Your task to perform on an android device: Show me popular games on the Play Store Image 0: 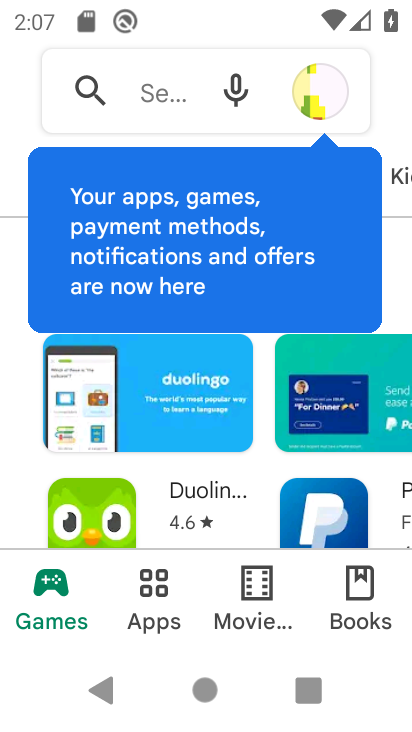
Step 0: drag from (201, 530) to (200, 90)
Your task to perform on an android device: Show me popular games on the Play Store Image 1: 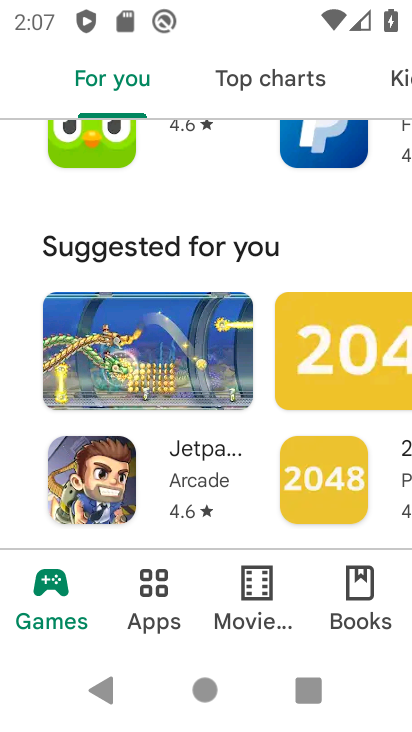
Step 1: drag from (196, 524) to (184, 110)
Your task to perform on an android device: Show me popular games on the Play Store Image 2: 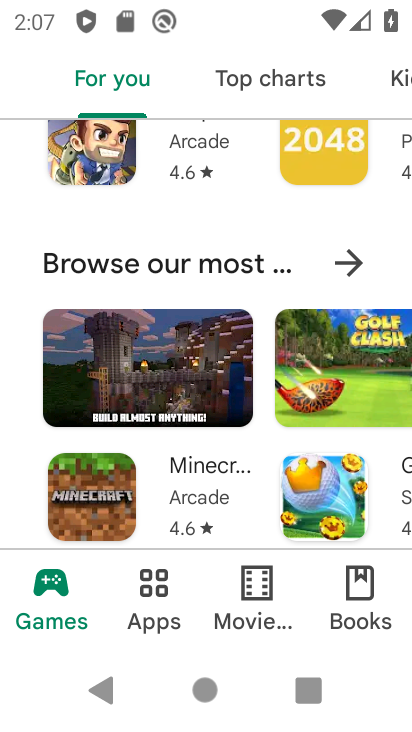
Step 2: drag from (208, 529) to (227, 168)
Your task to perform on an android device: Show me popular games on the Play Store Image 3: 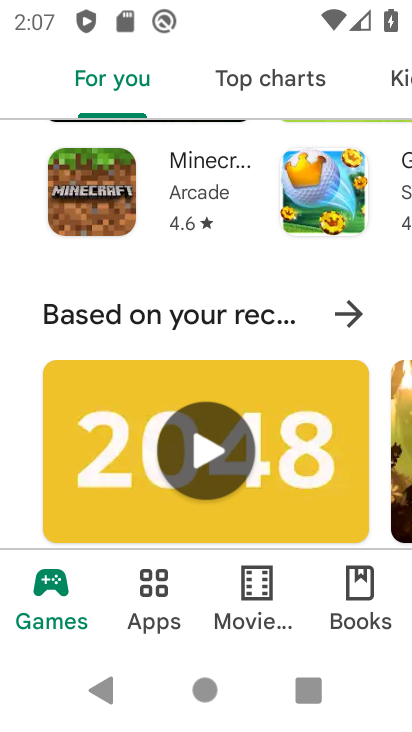
Step 3: drag from (206, 531) to (211, 133)
Your task to perform on an android device: Show me popular games on the Play Store Image 4: 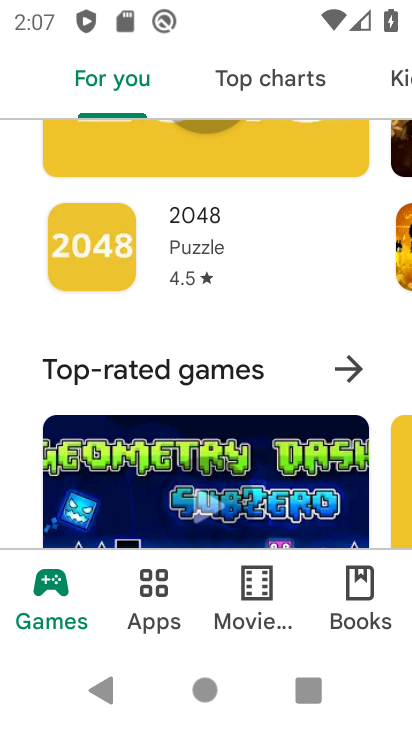
Step 4: drag from (244, 506) to (240, 102)
Your task to perform on an android device: Show me popular games on the Play Store Image 5: 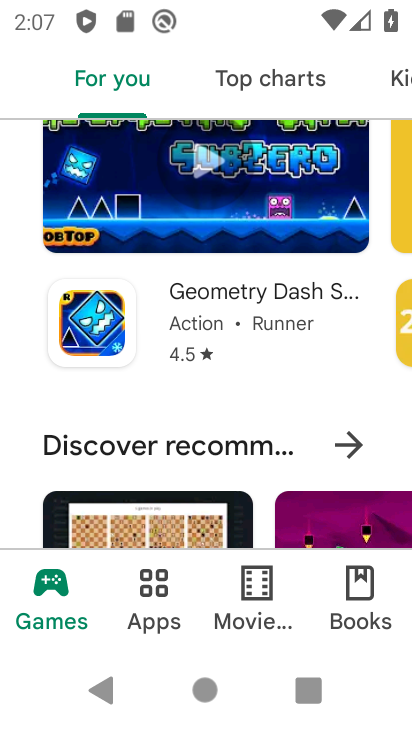
Step 5: drag from (257, 513) to (268, 152)
Your task to perform on an android device: Show me popular games on the Play Store Image 6: 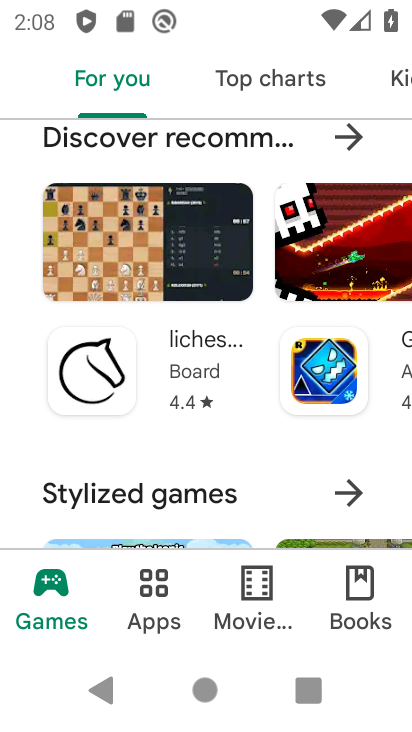
Step 6: drag from (256, 511) to (247, 148)
Your task to perform on an android device: Show me popular games on the Play Store Image 7: 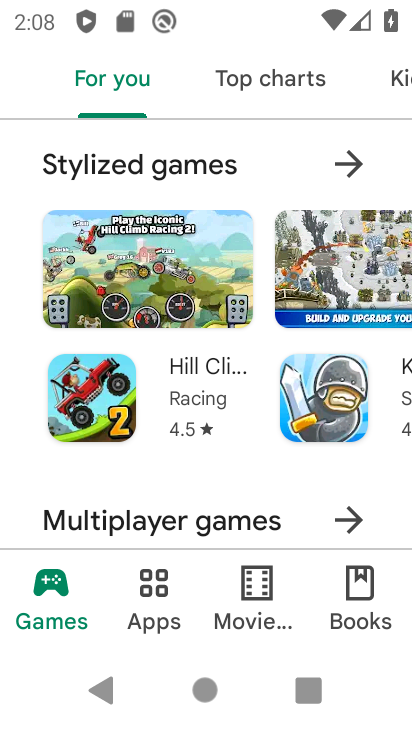
Step 7: drag from (272, 147) to (277, 490)
Your task to perform on an android device: Show me popular games on the Play Store Image 8: 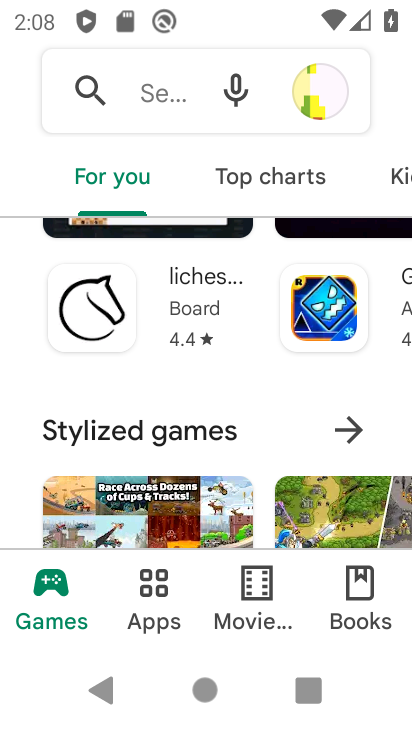
Step 8: drag from (255, 258) to (263, 536)
Your task to perform on an android device: Show me popular games on the Play Store Image 9: 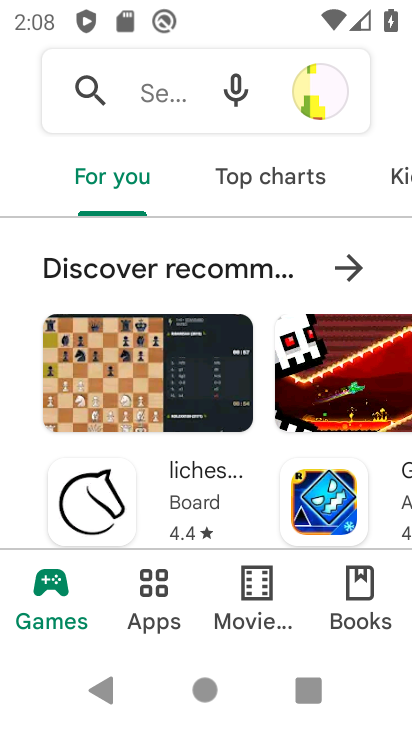
Step 9: drag from (270, 233) to (266, 524)
Your task to perform on an android device: Show me popular games on the Play Store Image 10: 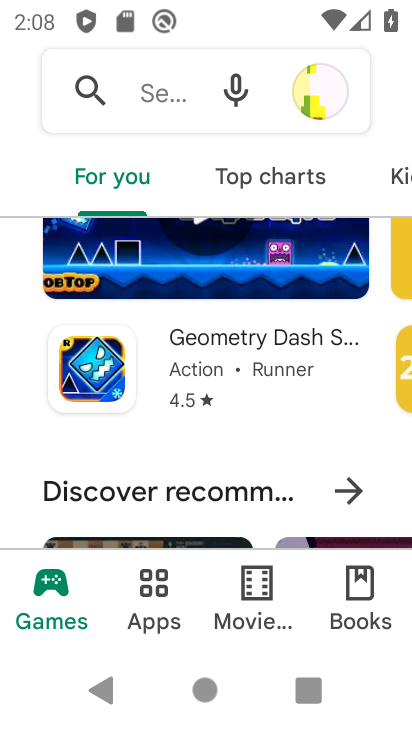
Step 10: drag from (252, 240) to (250, 494)
Your task to perform on an android device: Show me popular games on the Play Store Image 11: 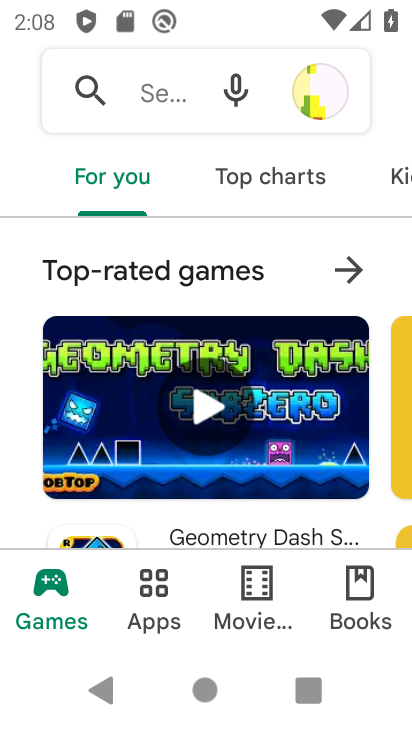
Step 11: drag from (252, 235) to (262, 502)
Your task to perform on an android device: Show me popular games on the Play Store Image 12: 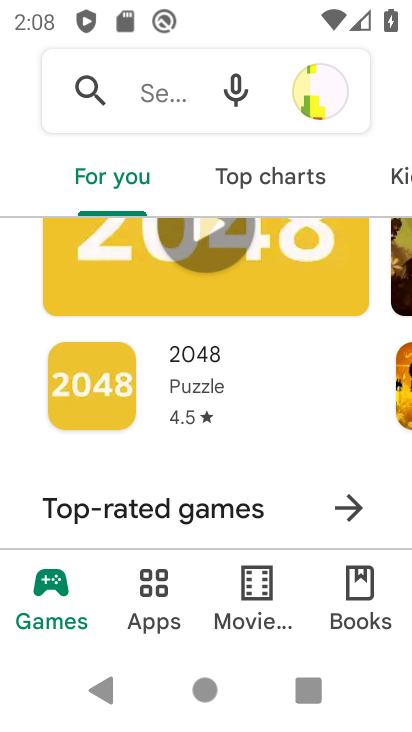
Step 12: drag from (270, 272) to (276, 495)
Your task to perform on an android device: Show me popular games on the Play Store Image 13: 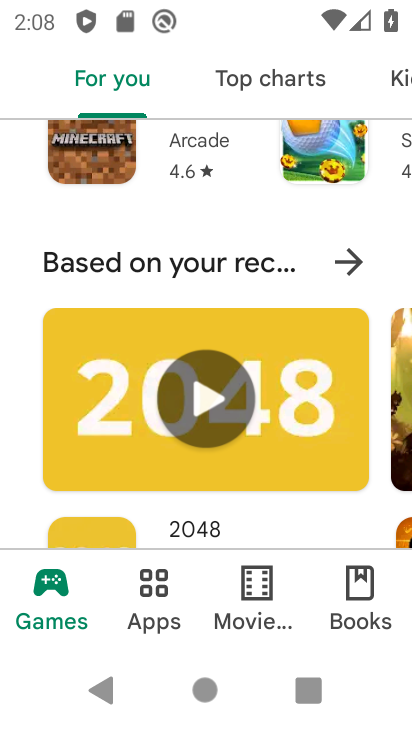
Step 13: drag from (271, 226) to (271, 509)
Your task to perform on an android device: Show me popular games on the Play Store Image 14: 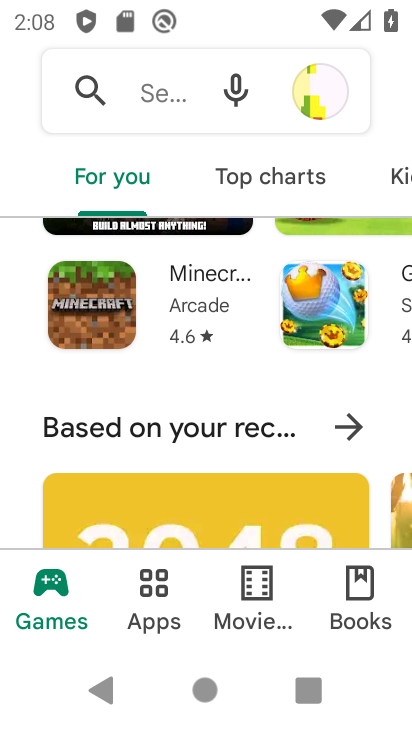
Step 14: drag from (256, 256) to (266, 479)
Your task to perform on an android device: Show me popular games on the Play Store Image 15: 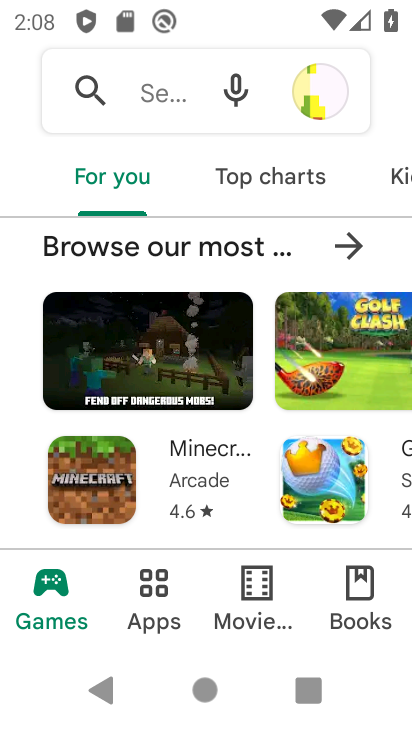
Step 15: click (190, 250)
Your task to perform on an android device: Show me popular games on the Play Store Image 16: 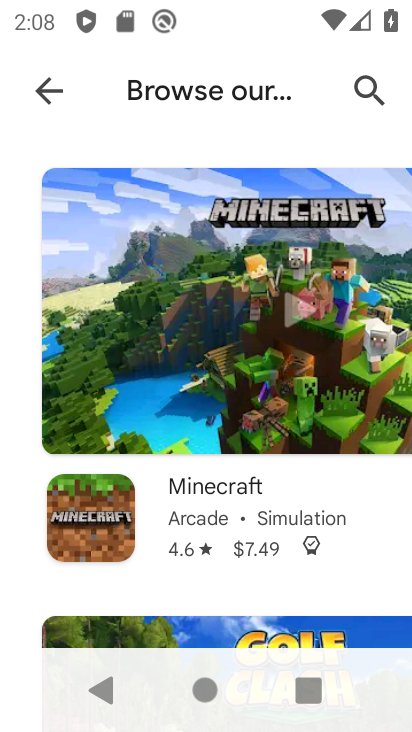
Step 16: task complete